Your task to perform on an android device: toggle javascript in the chrome app Image 0: 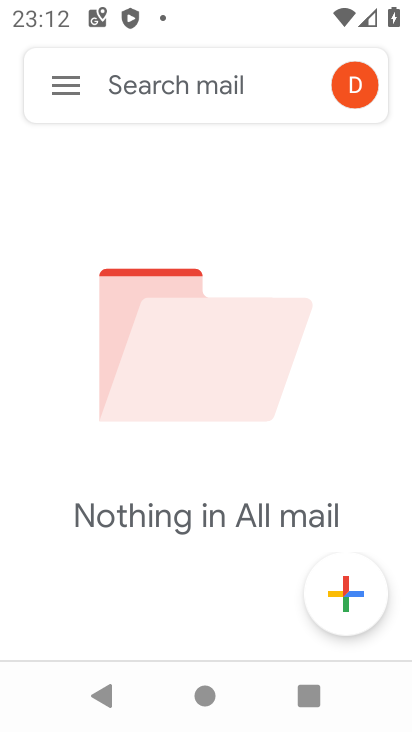
Step 0: press home button
Your task to perform on an android device: toggle javascript in the chrome app Image 1: 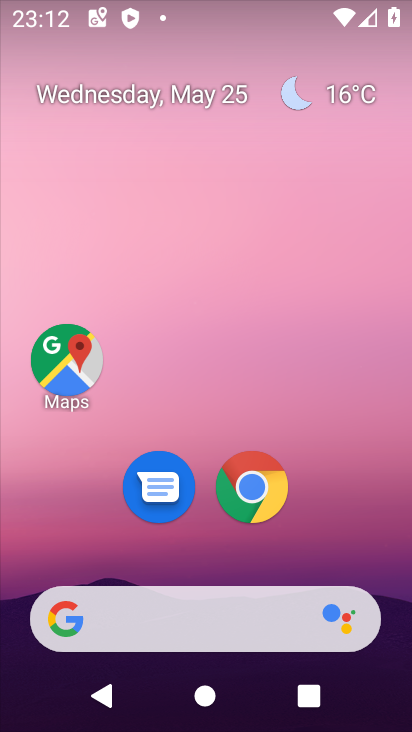
Step 1: click (250, 499)
Your task to perform on an android device: toggle javascript in the chrome app Image 2: 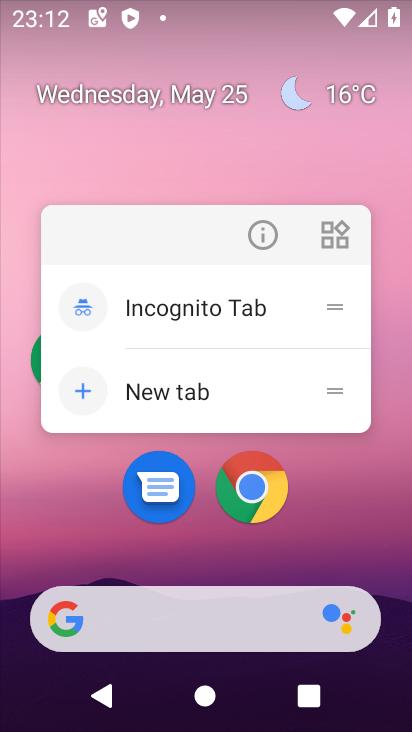
Step 2: click (235, 477)
Your task to perform on an android device: toggle javascript in the chrome app Image 3: 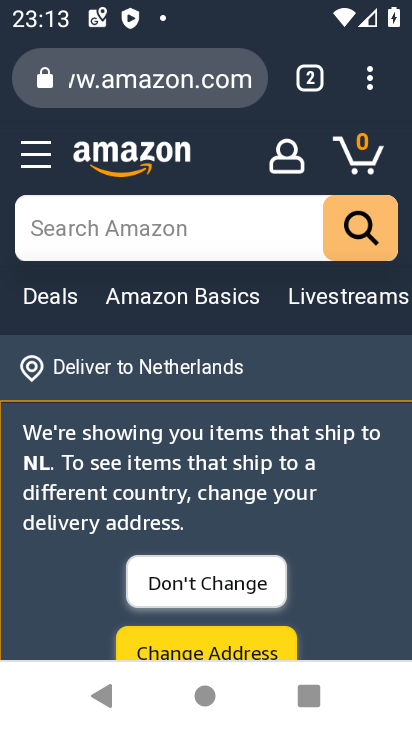
Step 3: click (368, 80)
Your task to perform on an android device: toggle javascript in the chrome app Image 4: 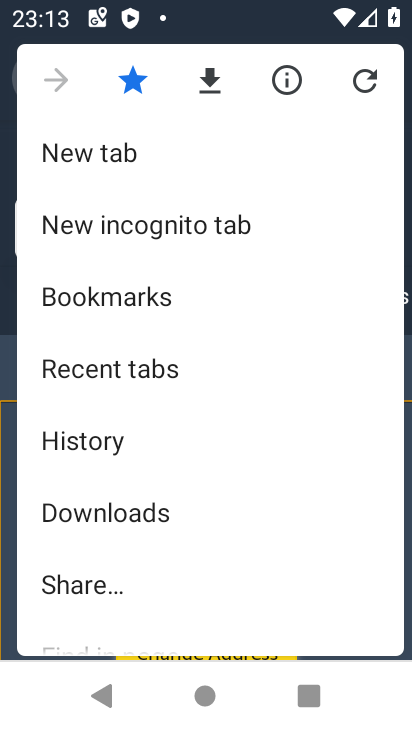
Step 4: drag from (276, 543) to (189, 104)
Your task to perform on an android device: toggle javascript in the chrome app Image 5: 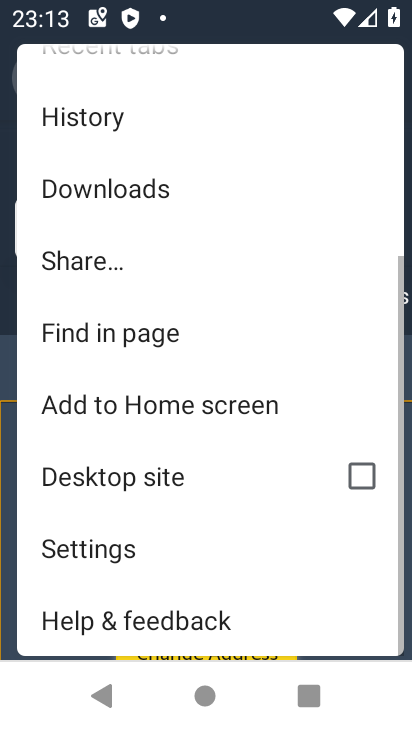
Step 5: click (105, 548)
Your task to perform on an android device: toggle javascript in the chrome app Image 6: 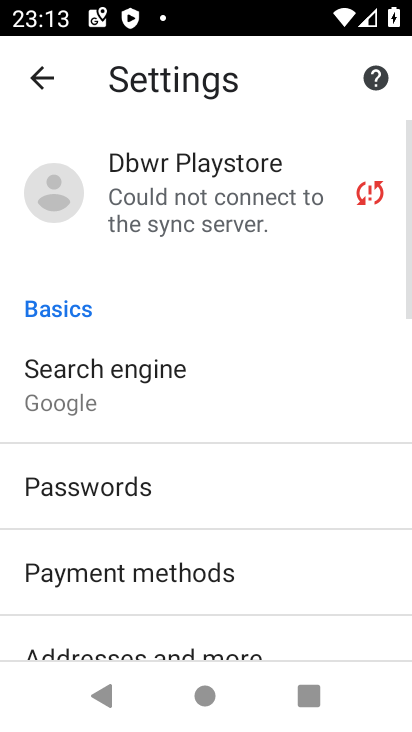
Step 6: drag from (278, 609) to (207, 180)
Your task to perform on an android device: toggle javascript in the chrome app Image 7: 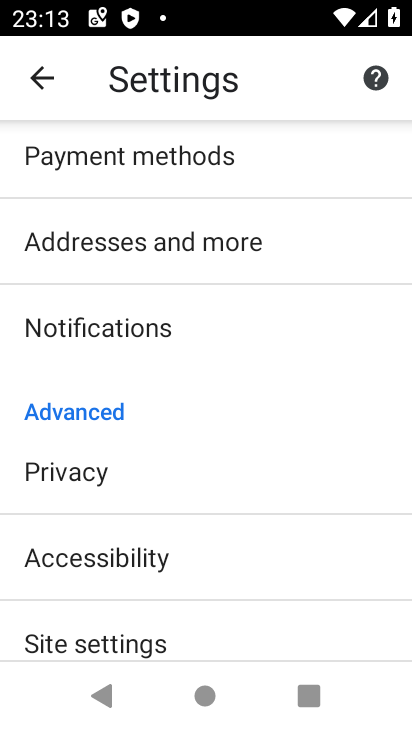
Step 7: click (193, 645)
Your task to perform on an android device: toggle javascript in the chrome app Image 8: 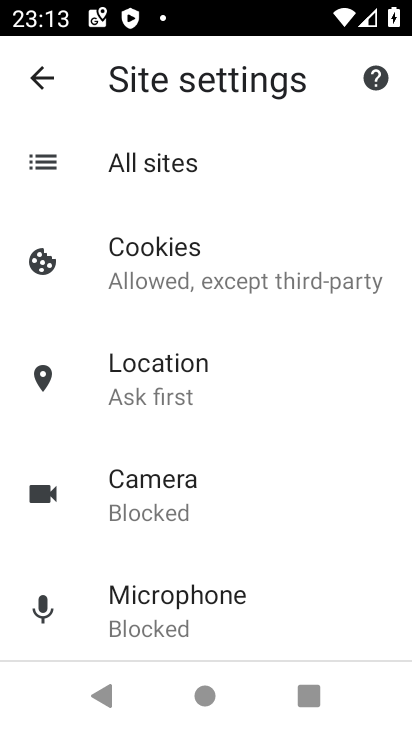
Step 8: drag from (255, 569) to (182, 139)
Your task to perform on an android device: toggle javascript in the chrome app Image 9: 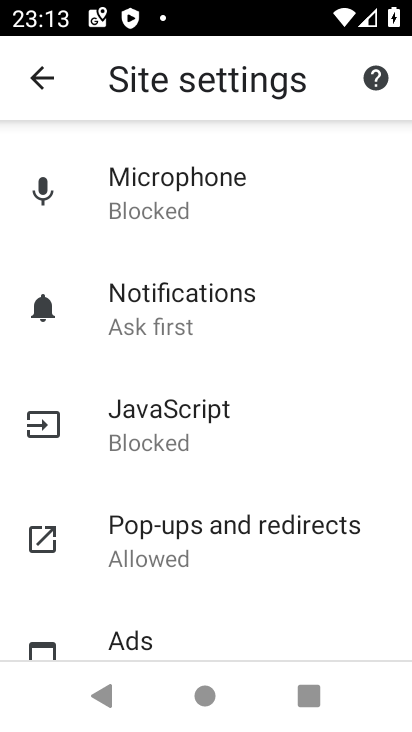
Step 9: click (220, 425)
Your task to perform on an android device: toggle javascript in the chrome app Image 10: 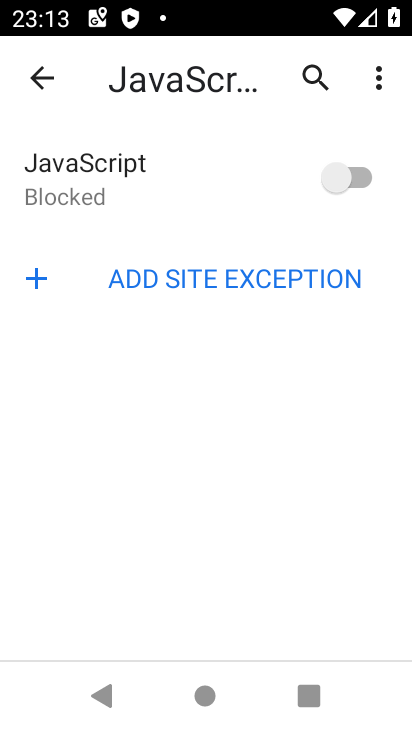
Step 10: click (347, 180)
Your task to perform on an android device: toggle javascript in the chrome app Image 11: 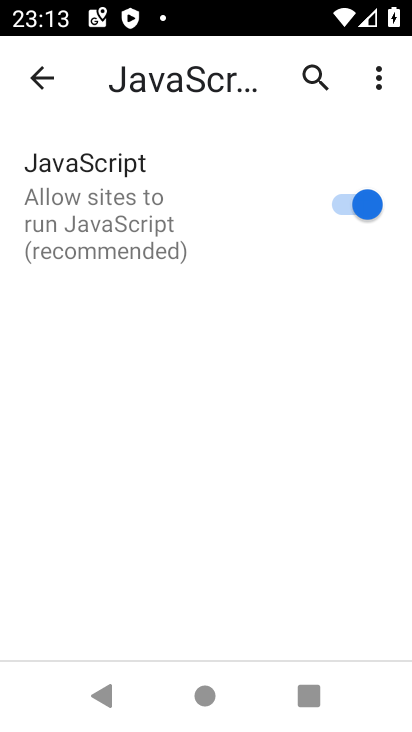
Step 11: task complete